Your task to perform on an android device: change keyboard looks Image 0: 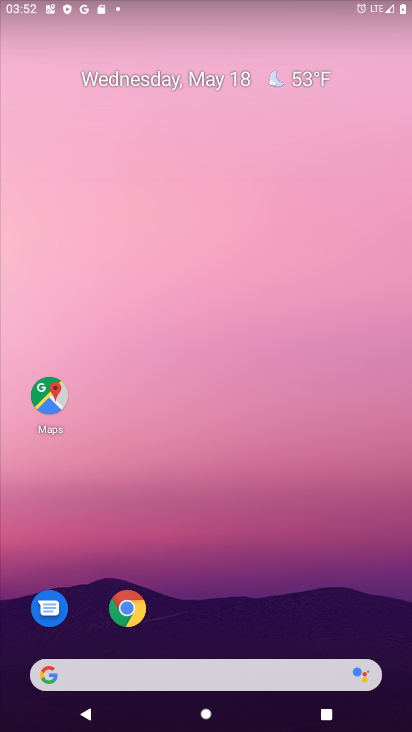
Step 0: drag from (303, 581) to (289, 16)
Your task to perform on an android device: change keyboard looks Image 1: 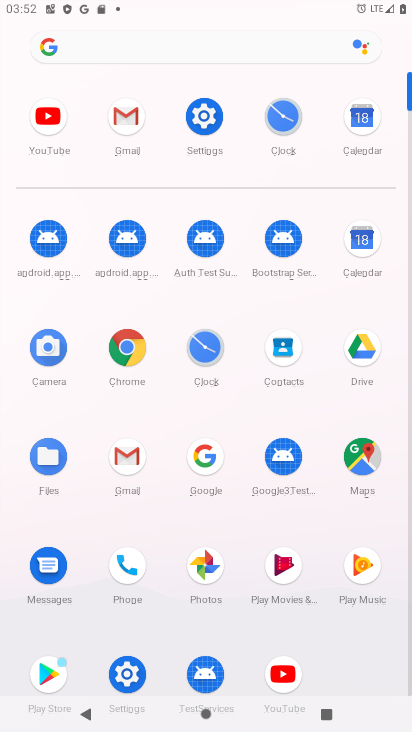
Step 1: click (204, 120)
Your task to perform on an android device: change keyboard looks Image 2: 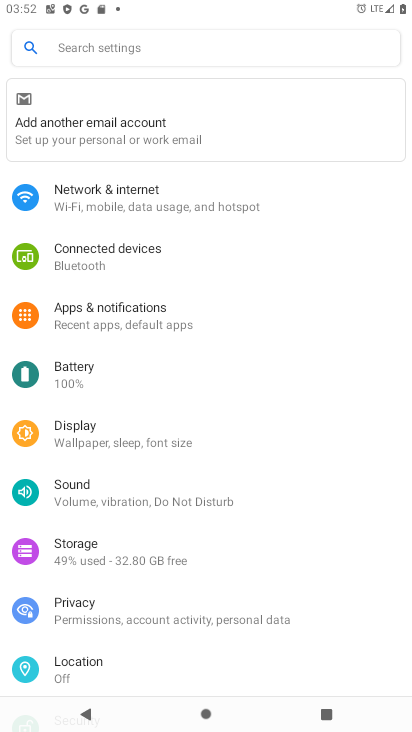
Step 2: drag from (285, 599) to (293, 94)
Your task to perform on an android device: change keyboard looks Image 3: 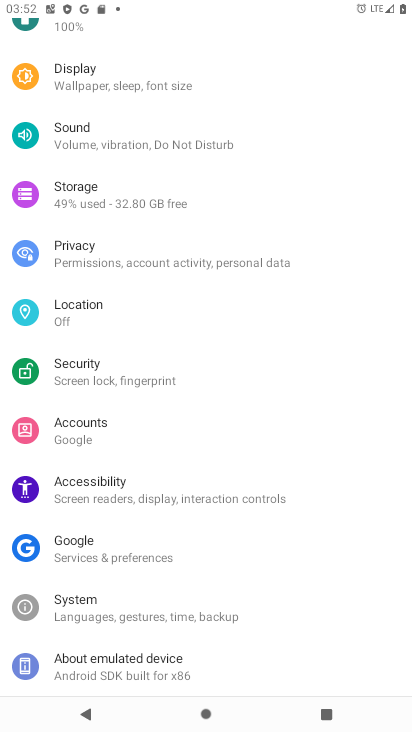
Step 3: click (82, 599)
Your task to perform on an android device: change keyboard looks Image 4: 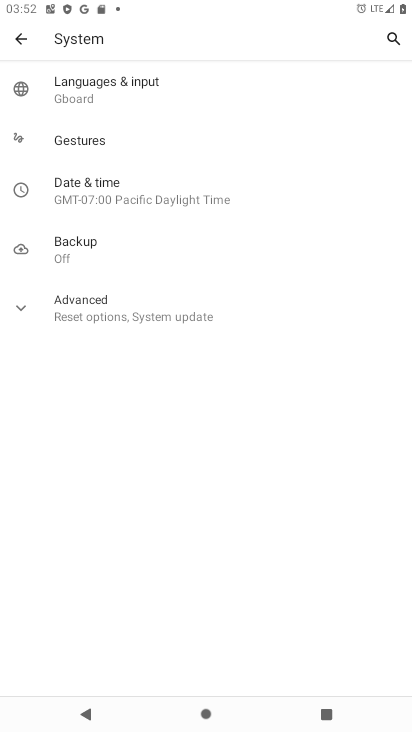
Step 4: click (84, 83)
Your task to perform on an android device: change keyboard looks Image 5: 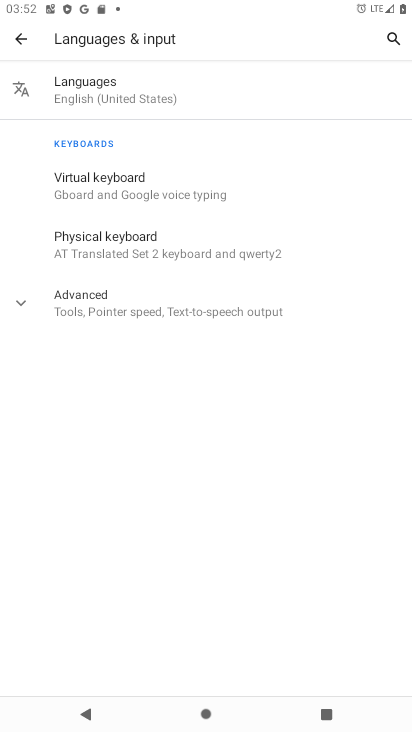
Step 5: click (82, 174)
Your task to perform on an android device: change keyboard looks Image 6: 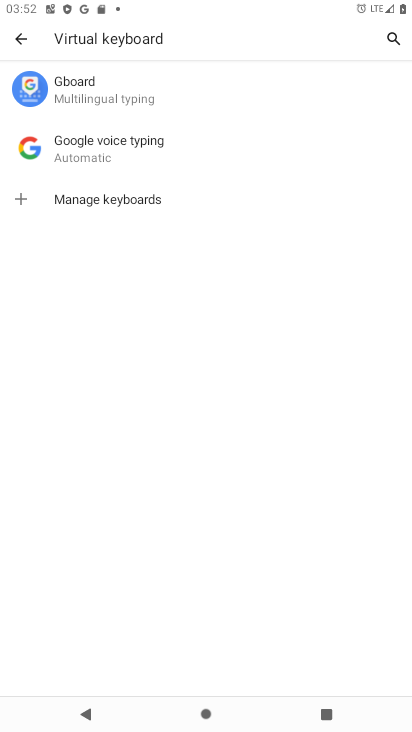
Step 6: click (67, 89)
Your task to perform on an android device: change keyboard looks Image 7: 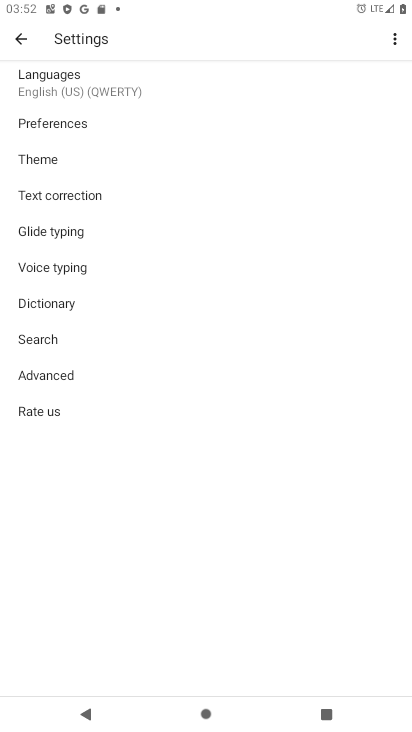
Step 7: click (40, 158)
Your task to perform on an android device: change keyboard looks Image 8: 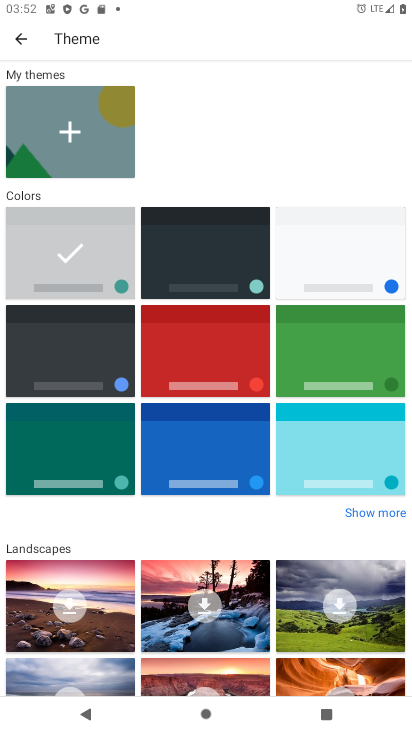
Step 8: click (186, 437)
Your task to perform on an android device: change keyboard looks Image 9: 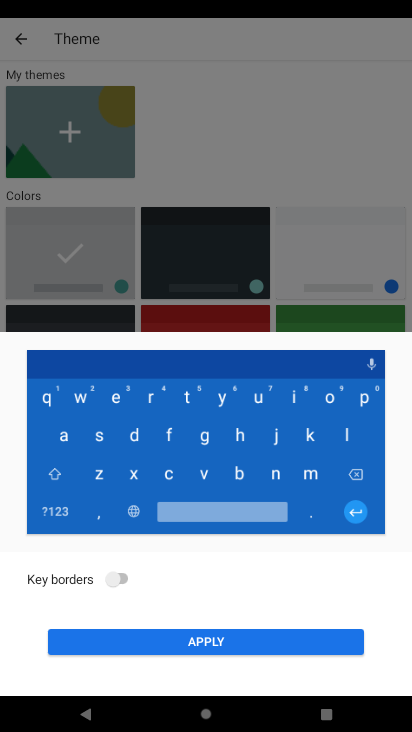
Step 9: click (120, 579)
Your task to perform on an android device: change keyboard looks Image 10: 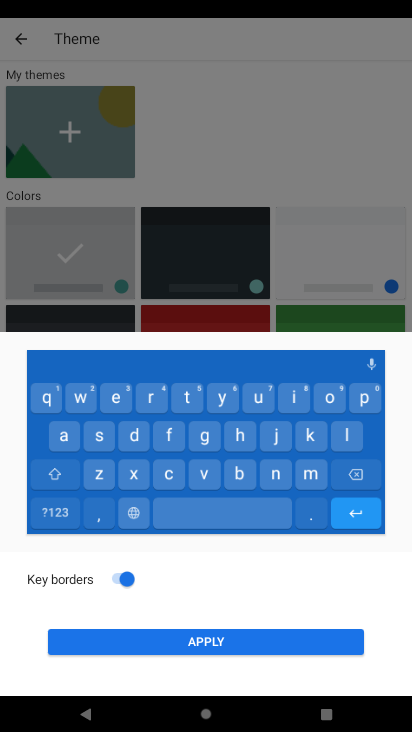
Step 10: click (201, 648)
Your task to perform on an android device: change keyboard looks Image 11: 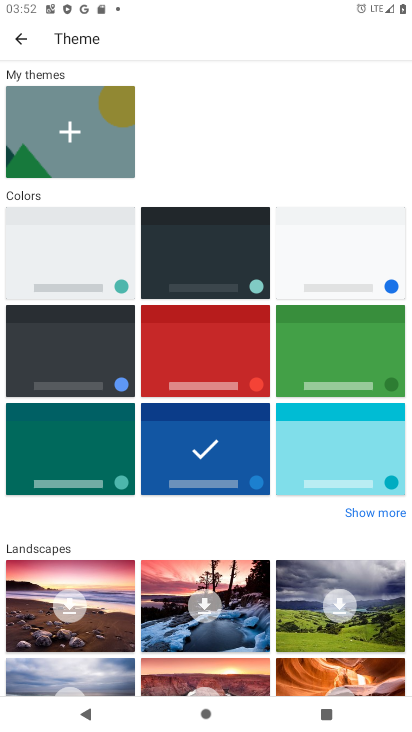
Step 11: task complete